Your task to perform on an android device: move an email to a new category in the gmail app Image 0: 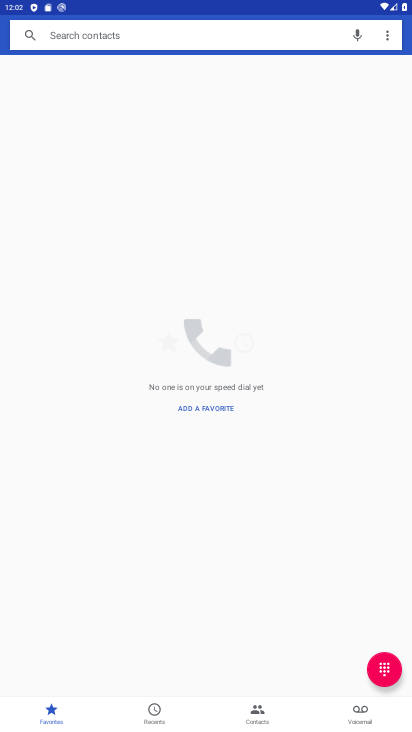
Step 0: press home button
Your task to perform on an android device: move an email to a new category in the gmail app Image 1: 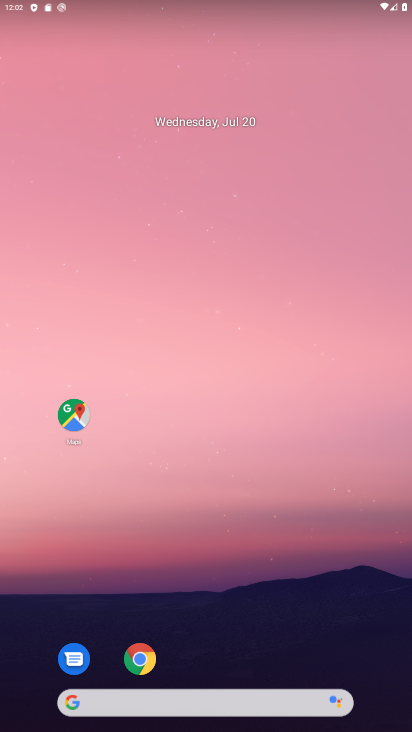
Step 1: drag from (359, 649) to (285, 22)
Your task to perform on an android device: move an email to a new category in the gmail app Image 2: 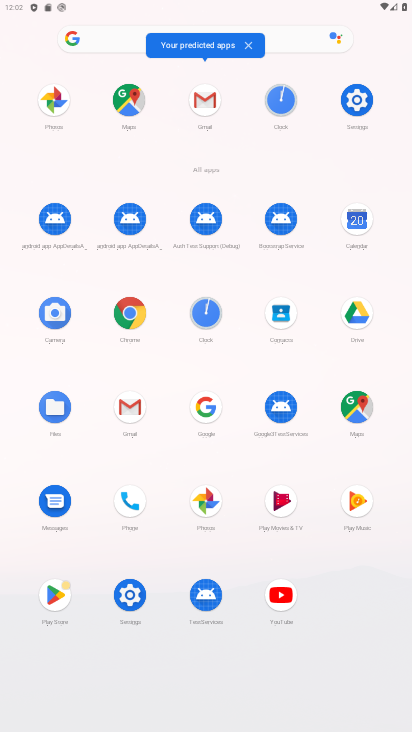
Step 2: click (130, 414)
Your task to perform on an android device: move an email to a new category in the gmail app Image 3: 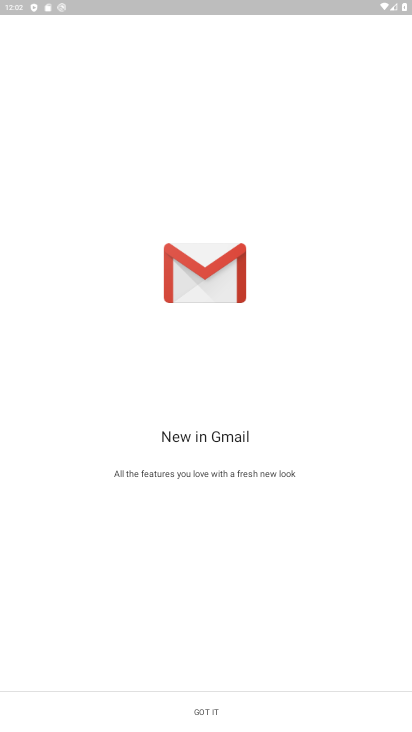
Step 3: click (190, 706)
Your task to perform on an android device: move an email to a new category in the gmail app Image 4: 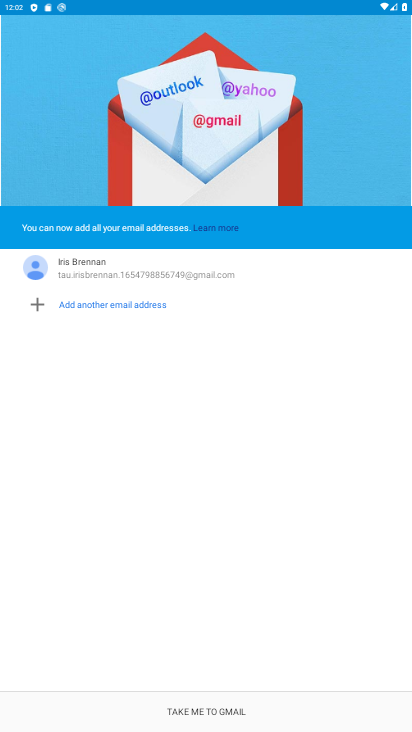
Step 4: click (190, 706)
Your task to perform on an android device: move an email to a new category in the gmail app Image 5: 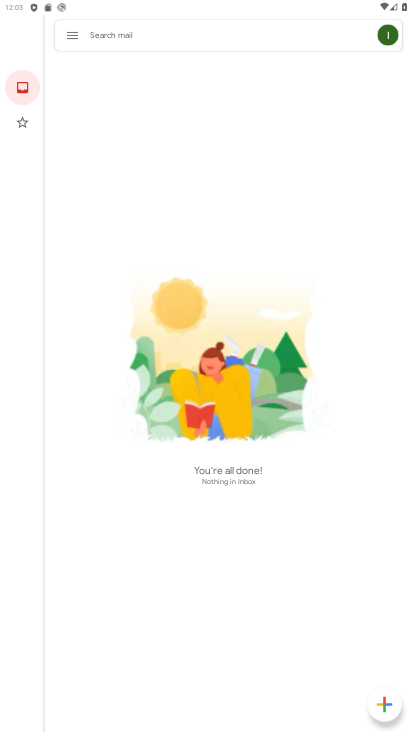
Step 5: task complete